Your task to perform on an android device: Toggle the flashlight Image 0: 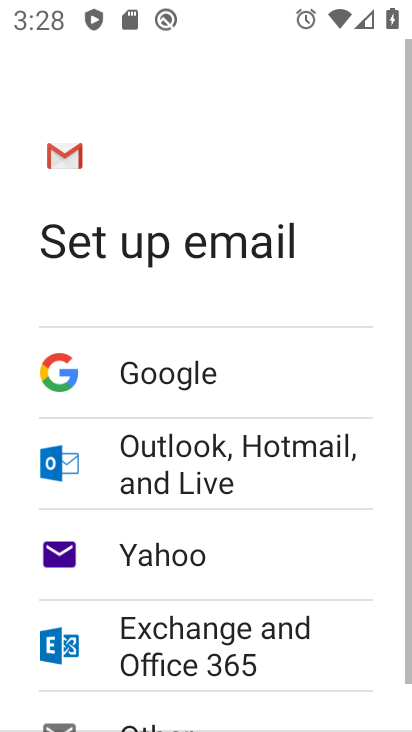
Step 0: press home button
Your task to perform on an android device: Toggle the flashlight Image 1: 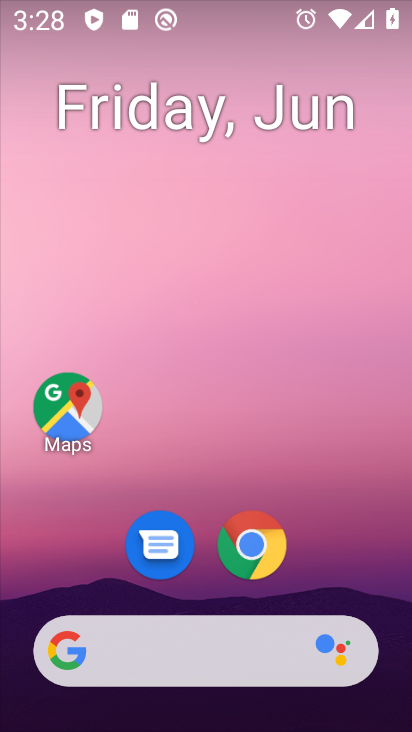
Step 1: drag from (350, 589) to (386, 123)
Your task to perform on an android device: Toggle the flashlight Image 2: 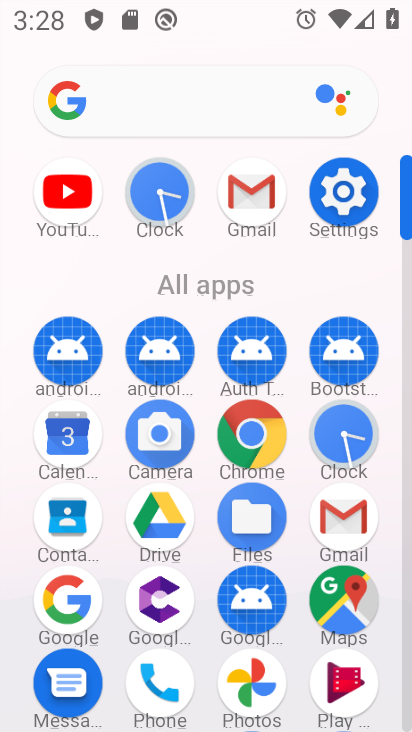
Step 2: click (348, 199)
Your task to perform on an android device: Toggle the flashlight Image 3: 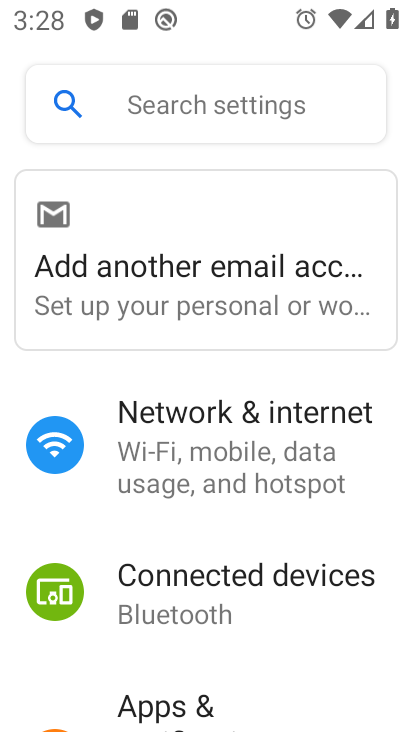
Step 3: task complete